Your task to perform on an android device: Open Chrome and go to settings Image 0: 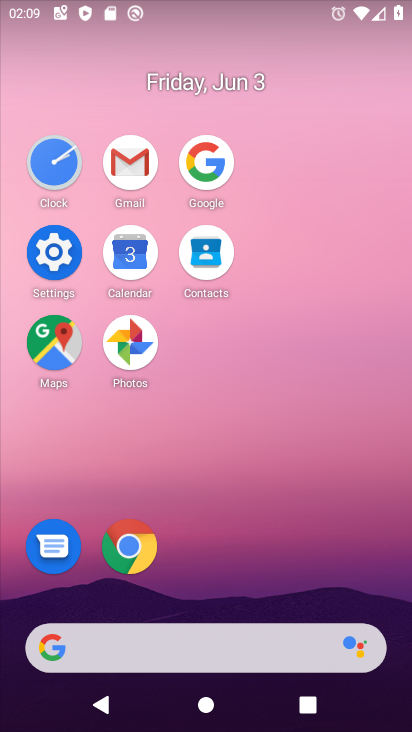
Step 0: click (138, 551)
Your task to perform on an android device: Open Chrome and go to settings Image 1: 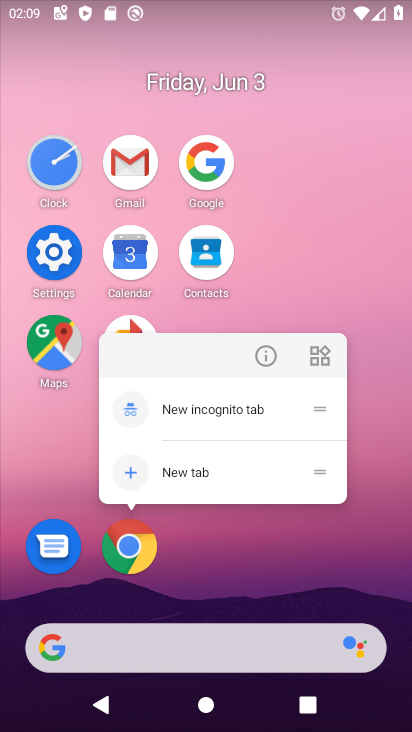
Step 1: click (155, 551)
Your task to perform on an android device: Open Chrome and go to settings Image 2: 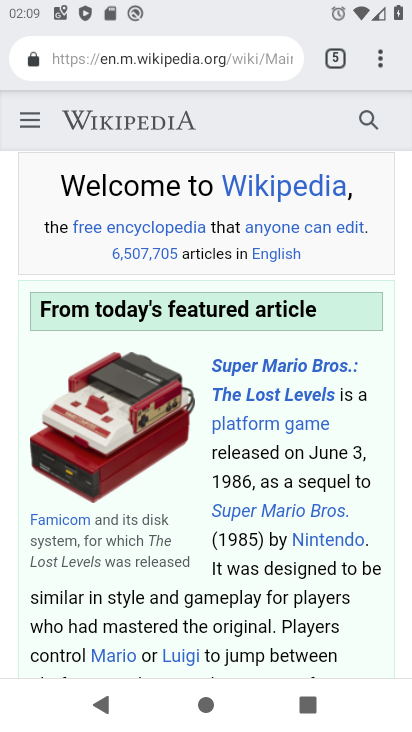
Step 2: click (379, 67)
Your task to perform on an android device: Open Chrome and go to settings Image 3: 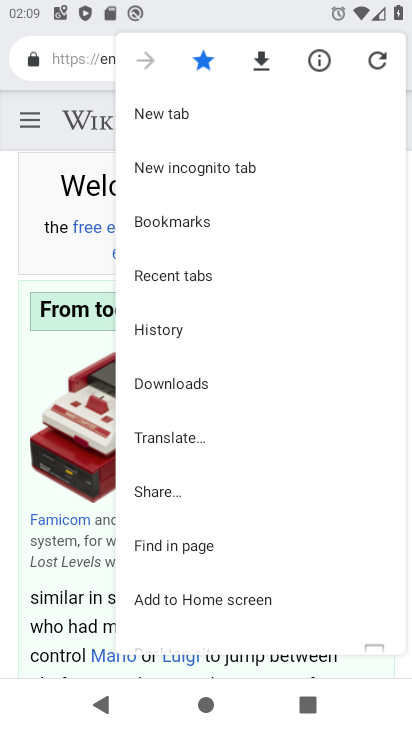
Step 3: drag from (192, 538) to (268, 206)
Your task to perform on an android device: Open Chrome and go to settings Image 4: 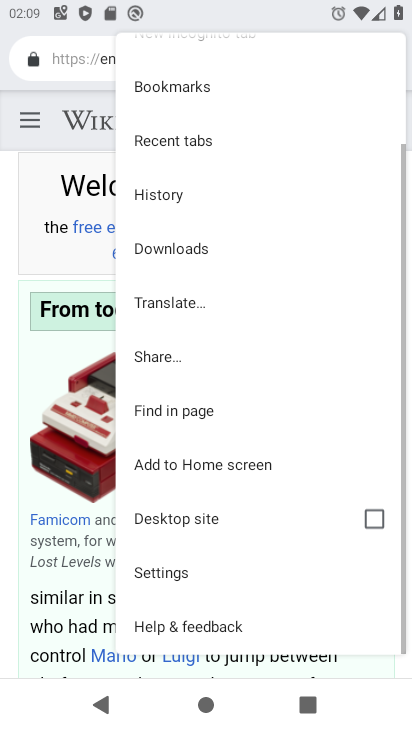
Step 4: click (211, 573)
Your task to perform on an android device: Open Chrome and go to settings Image 5: 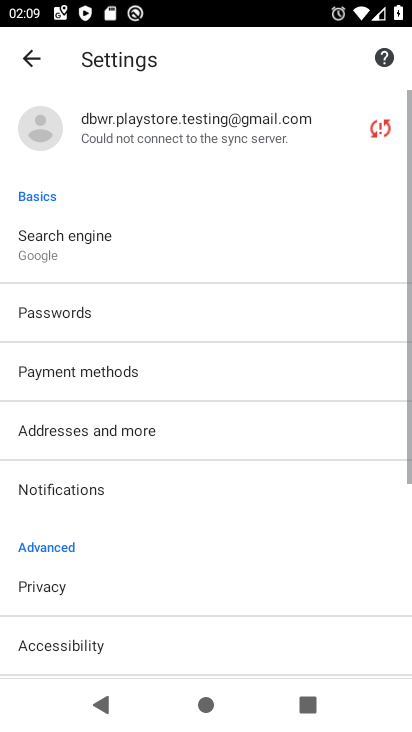
Step 5: task complete